Your task to perform on an android device: turn off location Image 0: 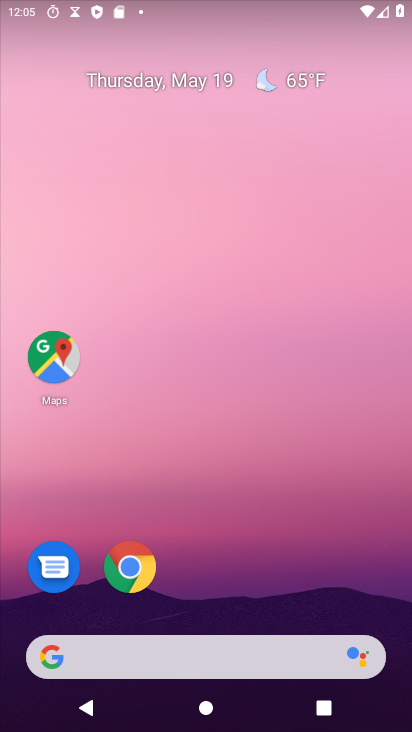
Step 0: drag from (302, 564) to (290, 204)
Your task to perform on an android device: turn off location Image 1: 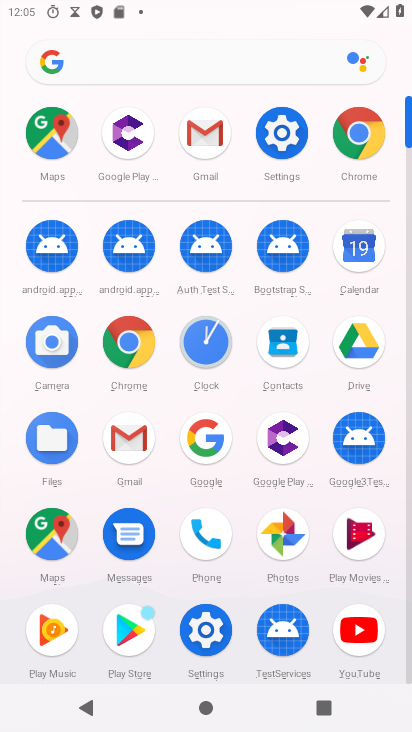
Step 1: click (212, 627)
Your task to perform on an android device: turn off location Image 2: 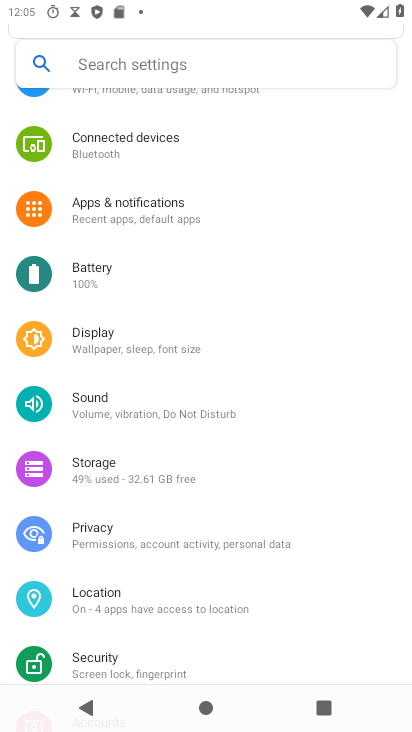
Step 2: click (164, 599)
Your task to perform on an android device: turn off location Image 3: 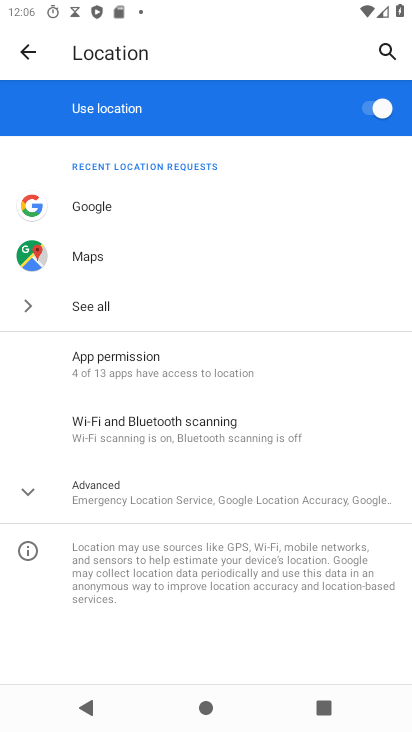
Step 3: click (370, 104)
Your task to perform on an android device: turn off location Image 4: 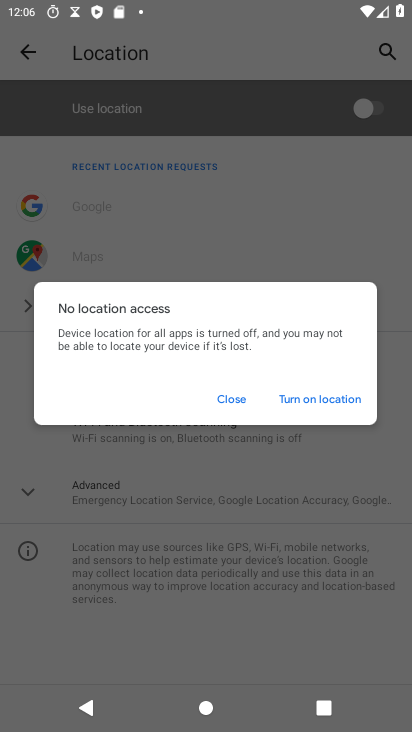
Step 4: task complete